Your task to perform on an android device: Play the last video I watched on Youtube Image 0: 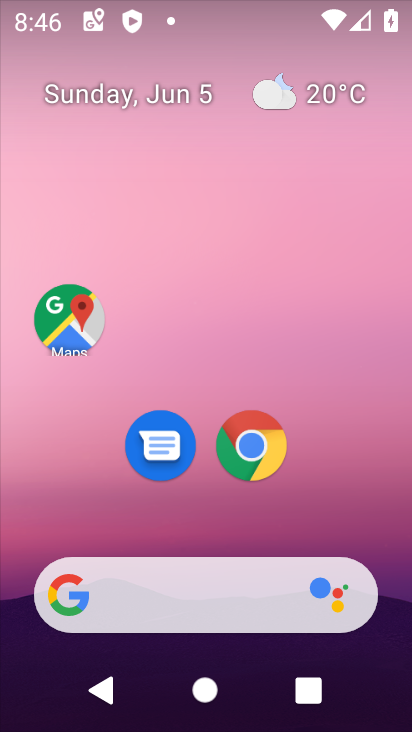
Step 0: drag from (235, 569) to (206, 0)
Your task to perform on an android device: Play the last video I watched on Youtube Image 1: 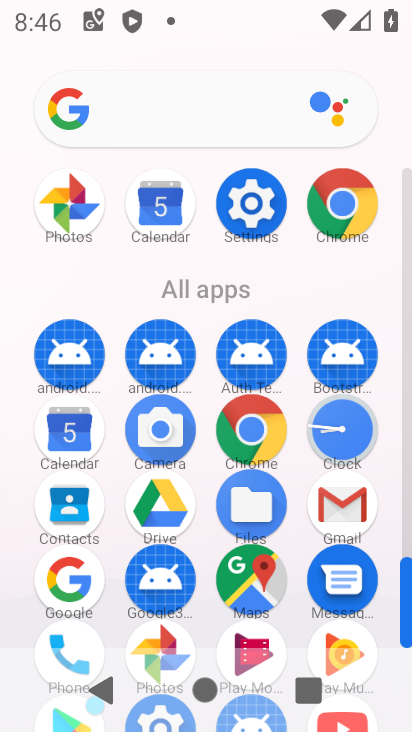
Step 1: drag from (291, 635) to (306, 150)
Your task to perform on an android device: Play the last video I watched on Youtube Image 2: 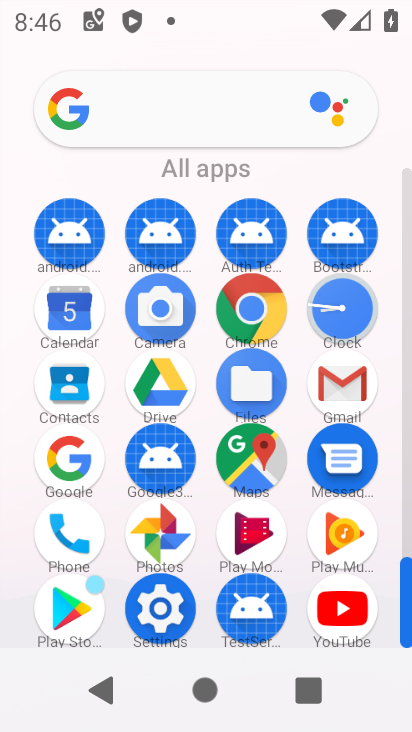
Step 2: click (353, 609)
Your task to perform on an android device: Play the last video I watched on Youtube Image 3: 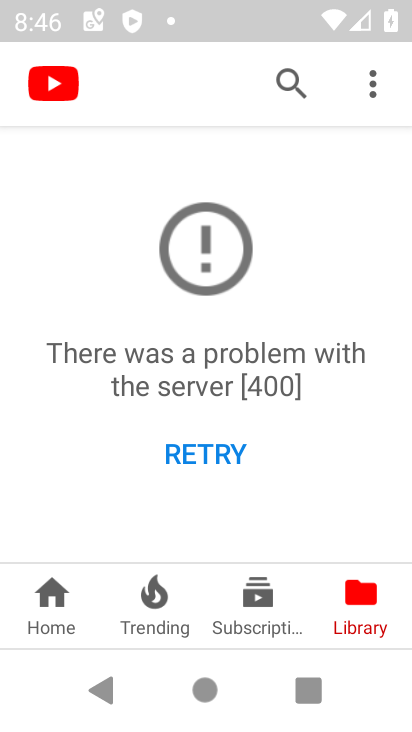
Step 3: click (236, 452)
Your task to perform on an android device: Play the last video I watched on Youtube Image 4: 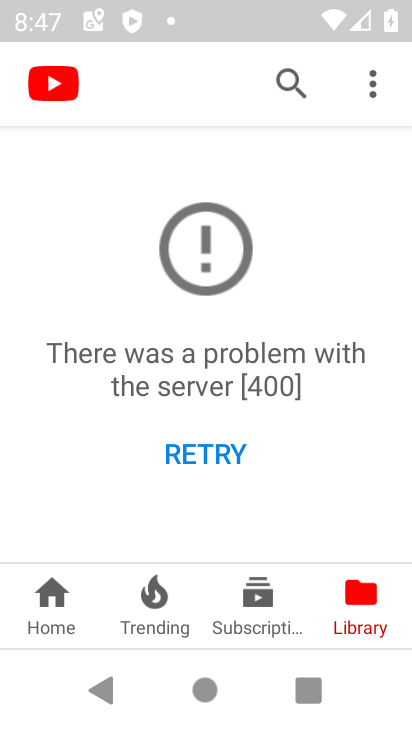
Step 4: task complete